Your task to perform on an android device: Open Google Maps and go to "Timeline" Image 0: 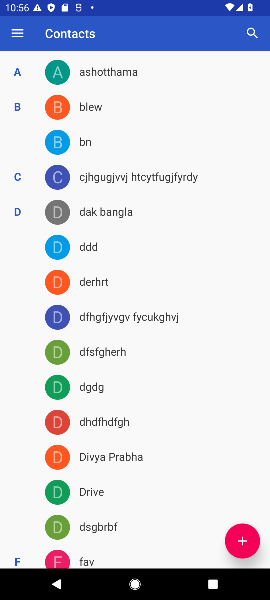
Step 0: press home button
Your task to perform on an android device: Open Google Maps and go to "Timeline" Image 1: 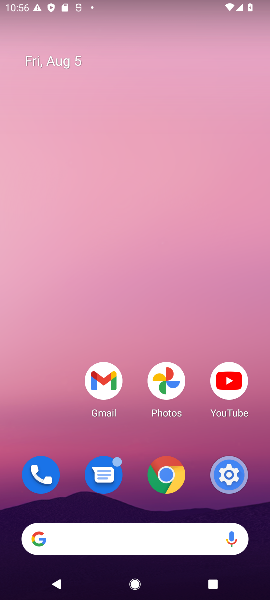
Step 1: drag from (136, 480) to (134, 51)
Your task to perform on an android device: Open Google Maps and go to "Timeline" Image 2: 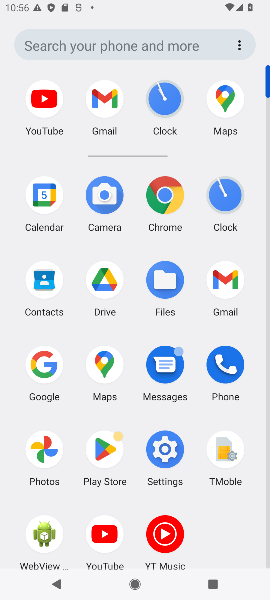
Step 2: click (110, 379)
Your task to perform on an android device: Open Google Maps and go to "Timeline" Image 3: 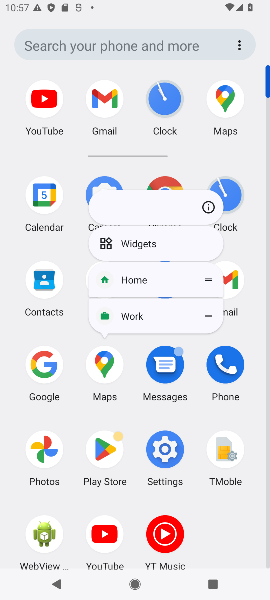
Step 3: click (105, 376)
Your task to perform on an android device: Open Google Maps and go to "Timeline" Image 4: 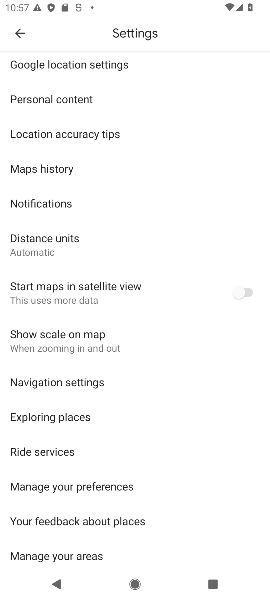
Step 4: click (15, 32)
Your task to perform on an android device: Open Google Maps and go to "Timeline" Image 5: 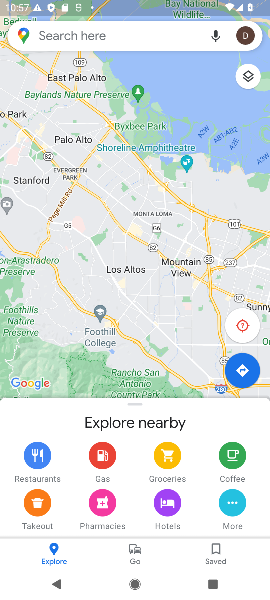
Step 5: click (139, 552)
Your task to perform on an android device: Open Google Maps and go to "Timeline" Image 6: 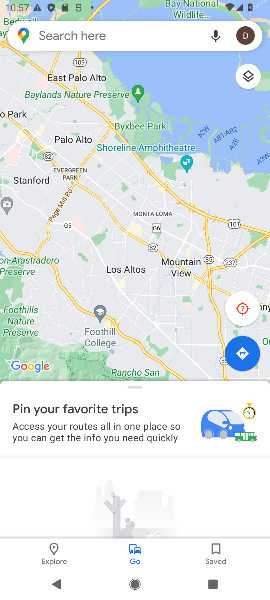
Step 6: task complete